Your task to perform on an android device: allow cookies in the chrome app Image 0: 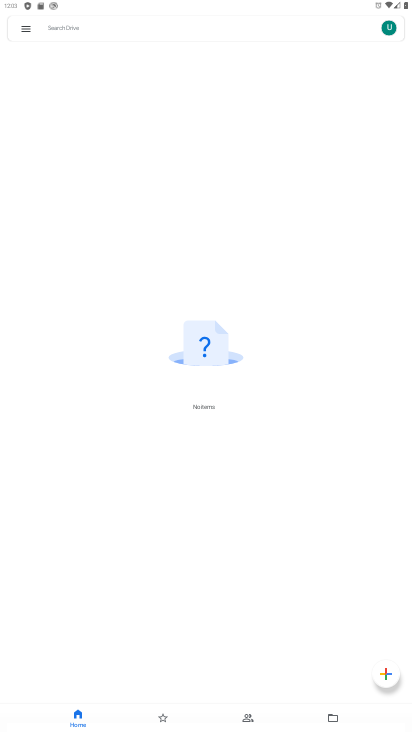
Step 0: press home button
Your task to perform on an android device: allow cookies in the chrome app Image 1: 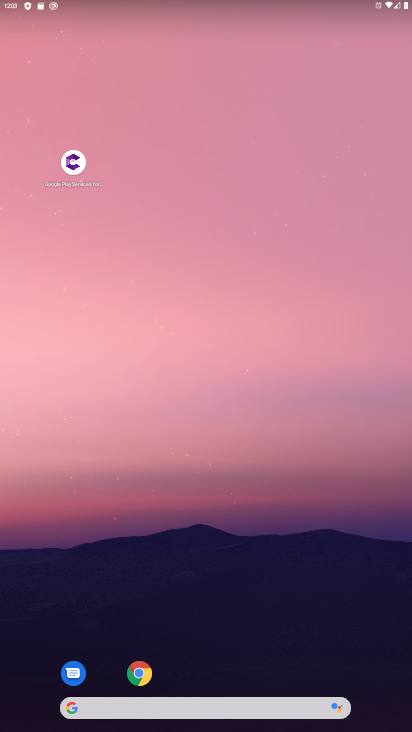
Step 1: click (161, 669)
Your task to perform on an android device: allow cookies in the chrome app Image 2: 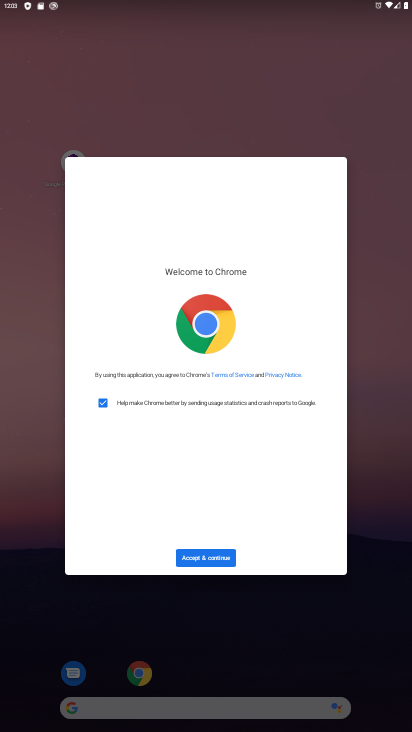
Step 2: click (191, 563)
Your task to perform on an android device: allow cookies in the chrome app Image 3: 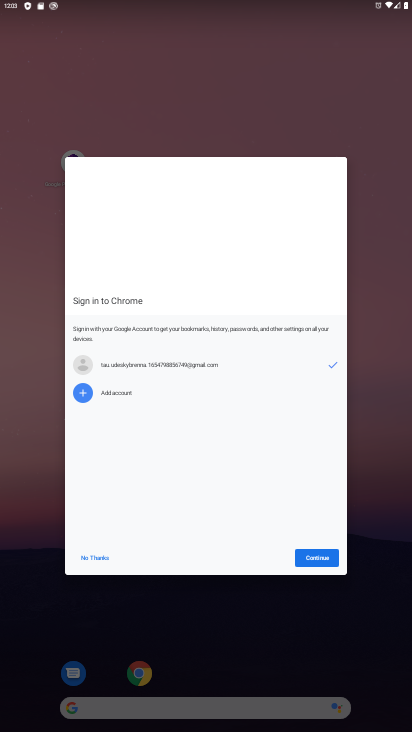
Step 3: click (342, 547)
Your task to perform on an android device: allow cookies in the chrome app Image 4: 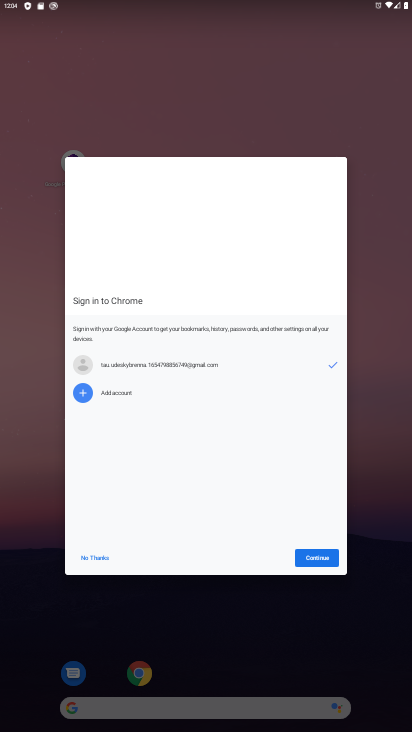
Step 4: click (307, 562)
Your task to perform on an android device: allow cookies in the chrome app Image 5: 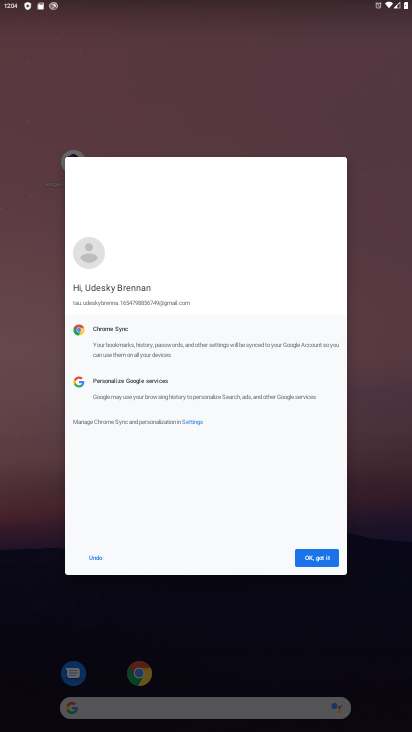
Step 5: click (330, 562)
Your task to perform on an android device: allow cookies in the chrome app Image 6: 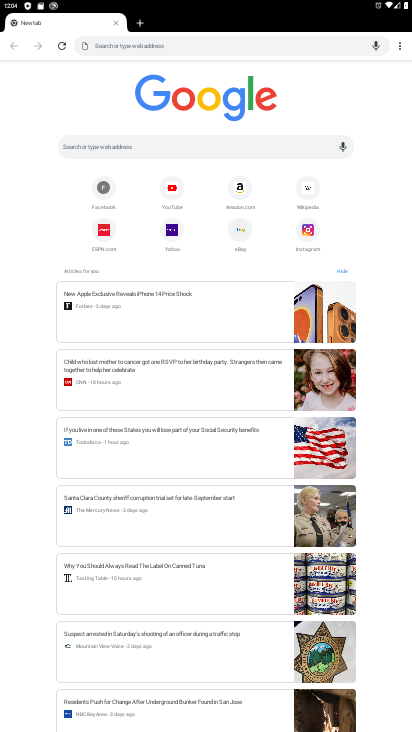
Step 6: click (396, 41)
Your task to perform on an android device: allow cookies in the chrome app Image 7: 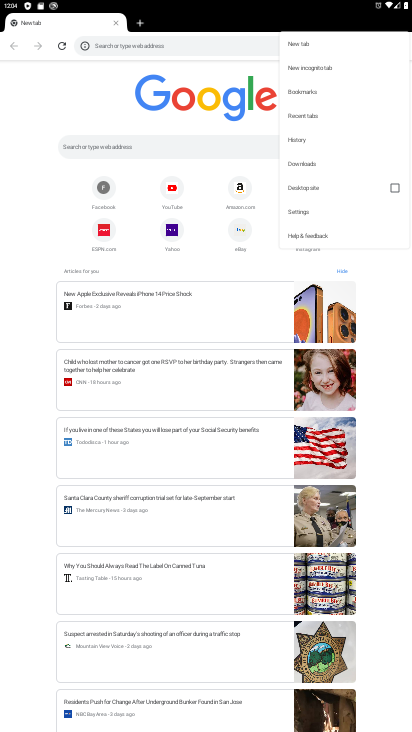
Step 7: click (396, 41)
Your task to perform on an android device: allow cookies in the chrome app Image 8: 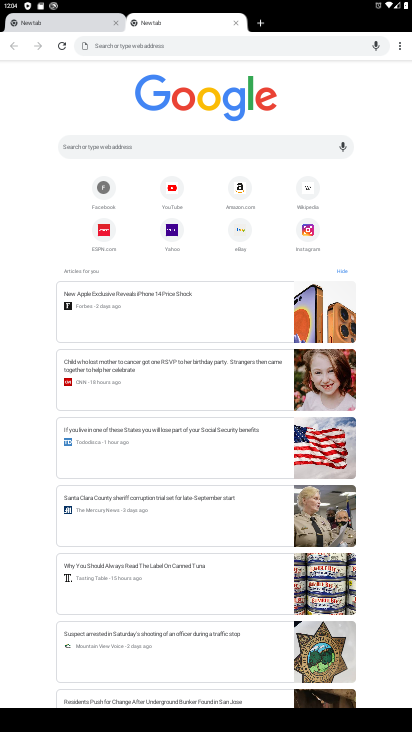
Step 8: click (393, 49)
Your task to perform on an android device: allow cookies in the chrome app Image 9: 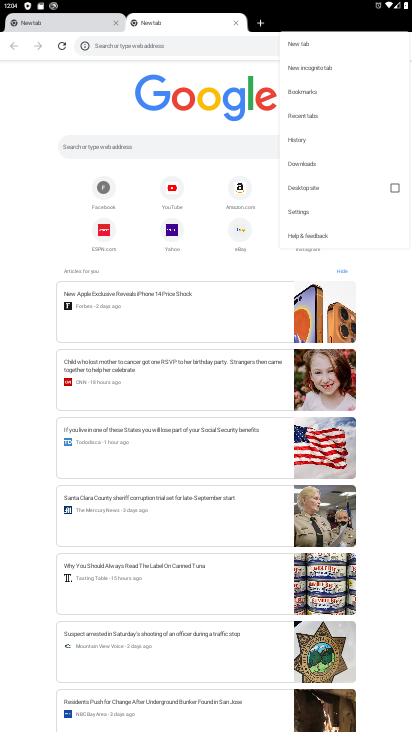
Step 9: click (310, 218)
Your task to perform on an android device: allow cookies in the chrome app Image 10: 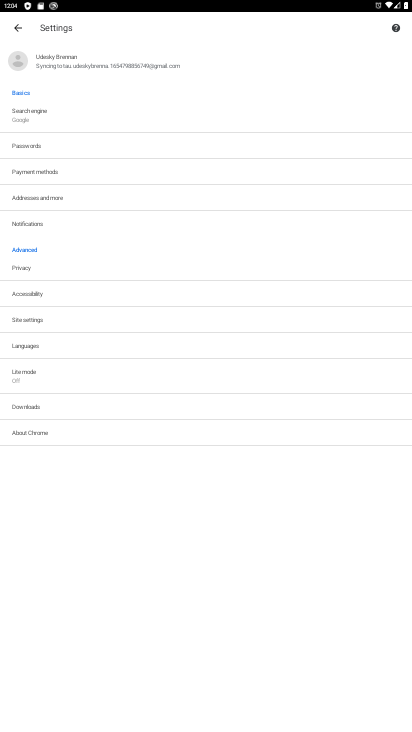
Step 10: task complete